Your task to perform on an android device: turn on data saver in the chrome app Image 0: 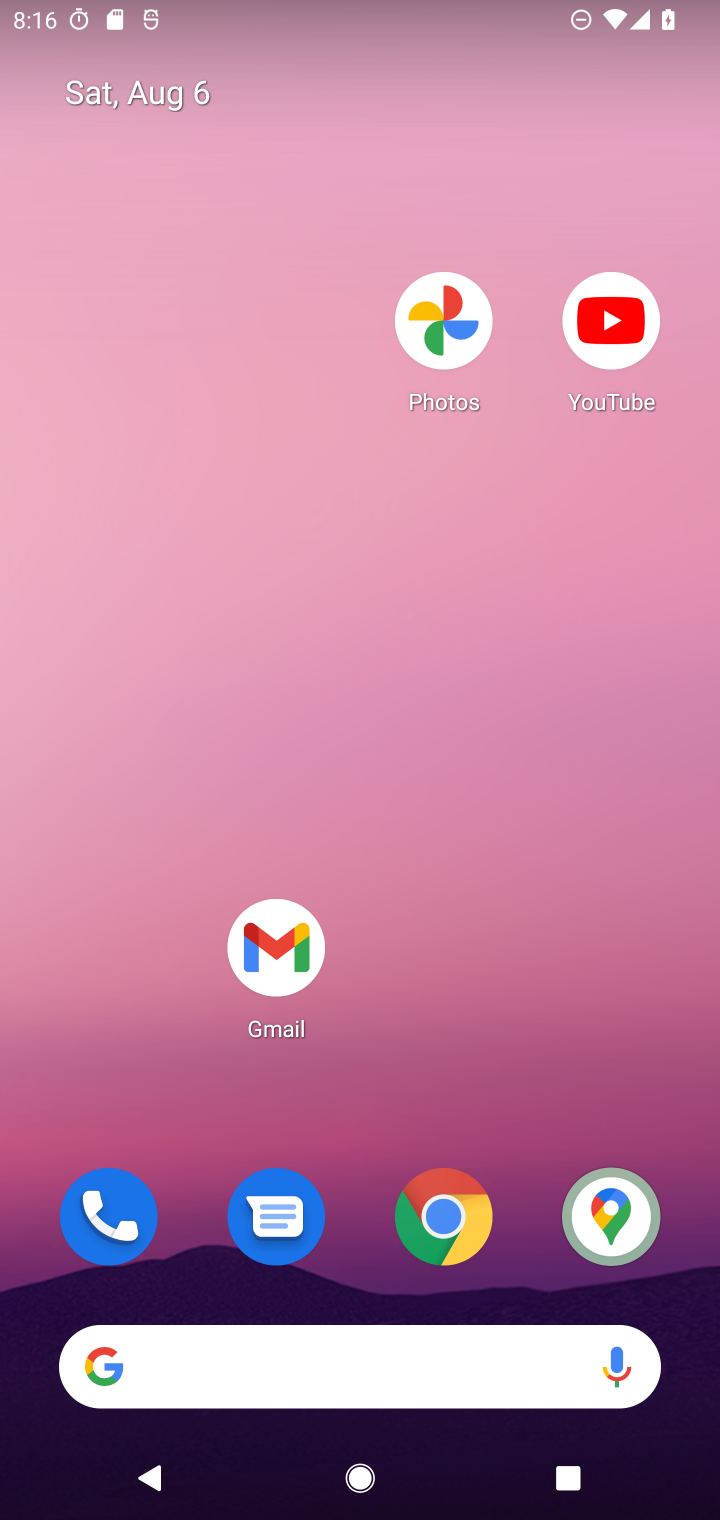
Step 0: drag from (534, 989) to (364, 17)
Your task to perform on an android device: turn on data saver in the chrome app Image 1: 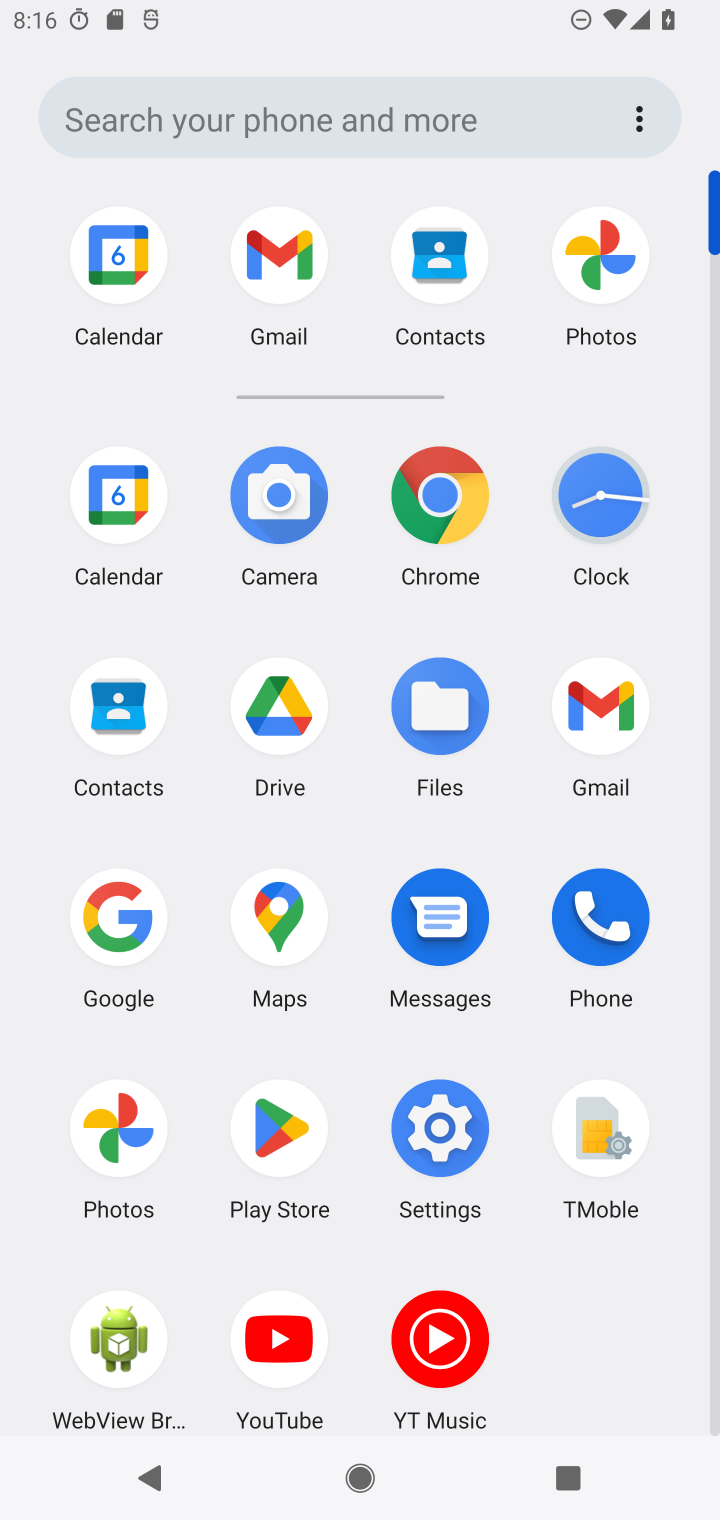
Step 1: click (437, 492)
Your task to perform on an android device: turn on data saver in the chrome app Image 2: 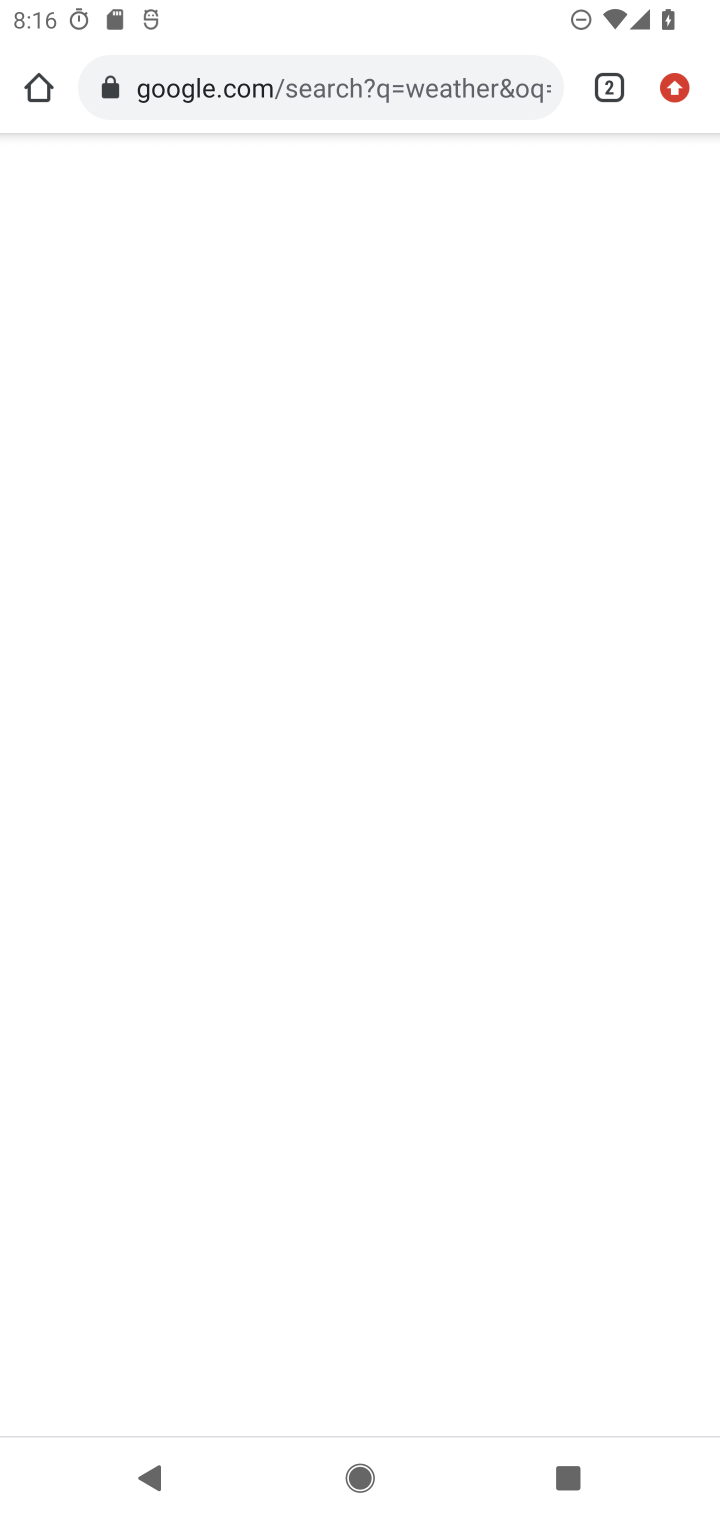
Step 2: drag from (708, 80) to (393, 1182)
Your task to perform on an android device: turn on data saver in the chrome app Image 3: 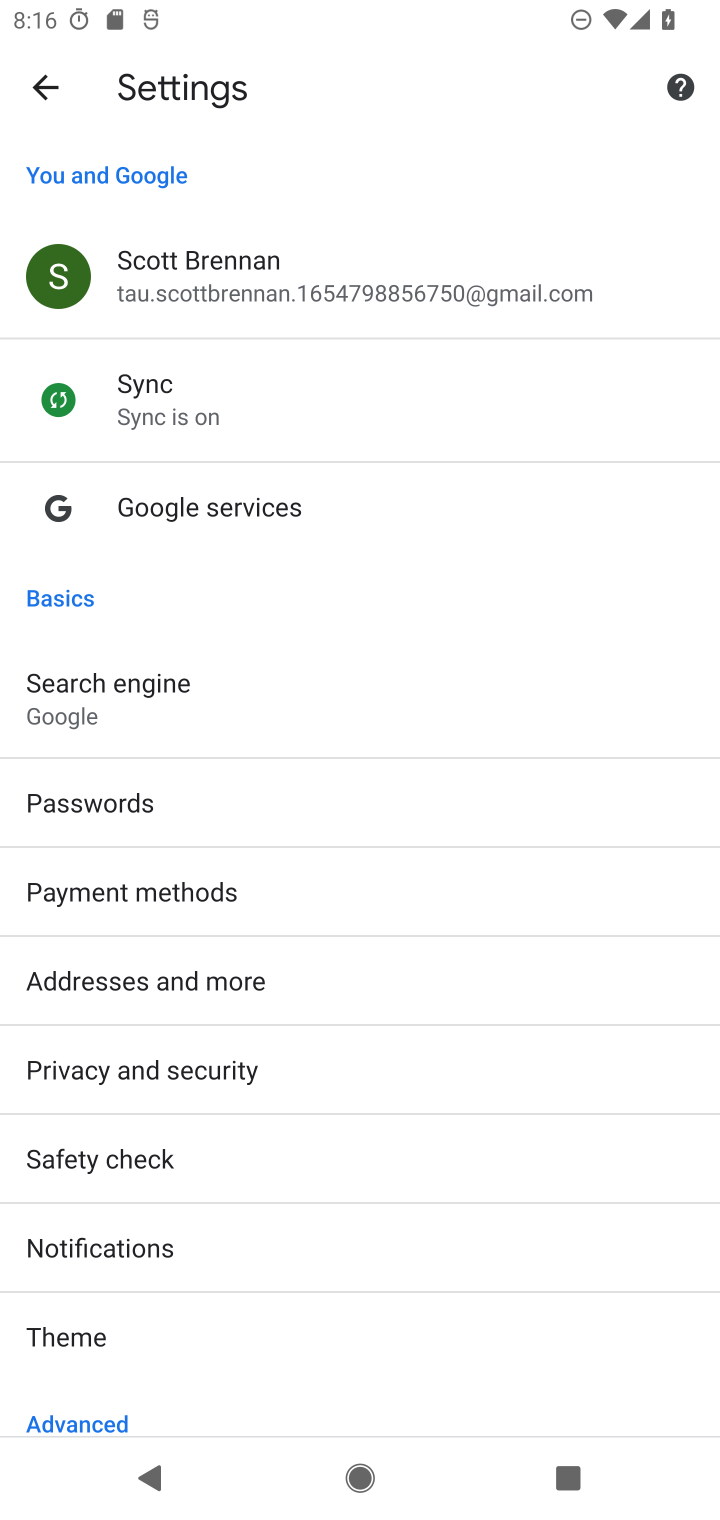
Step 3: drag from (328, 1281) to (496, 318)
Your task to perform on an android device: turn on data saver in the chrome app Image 4: 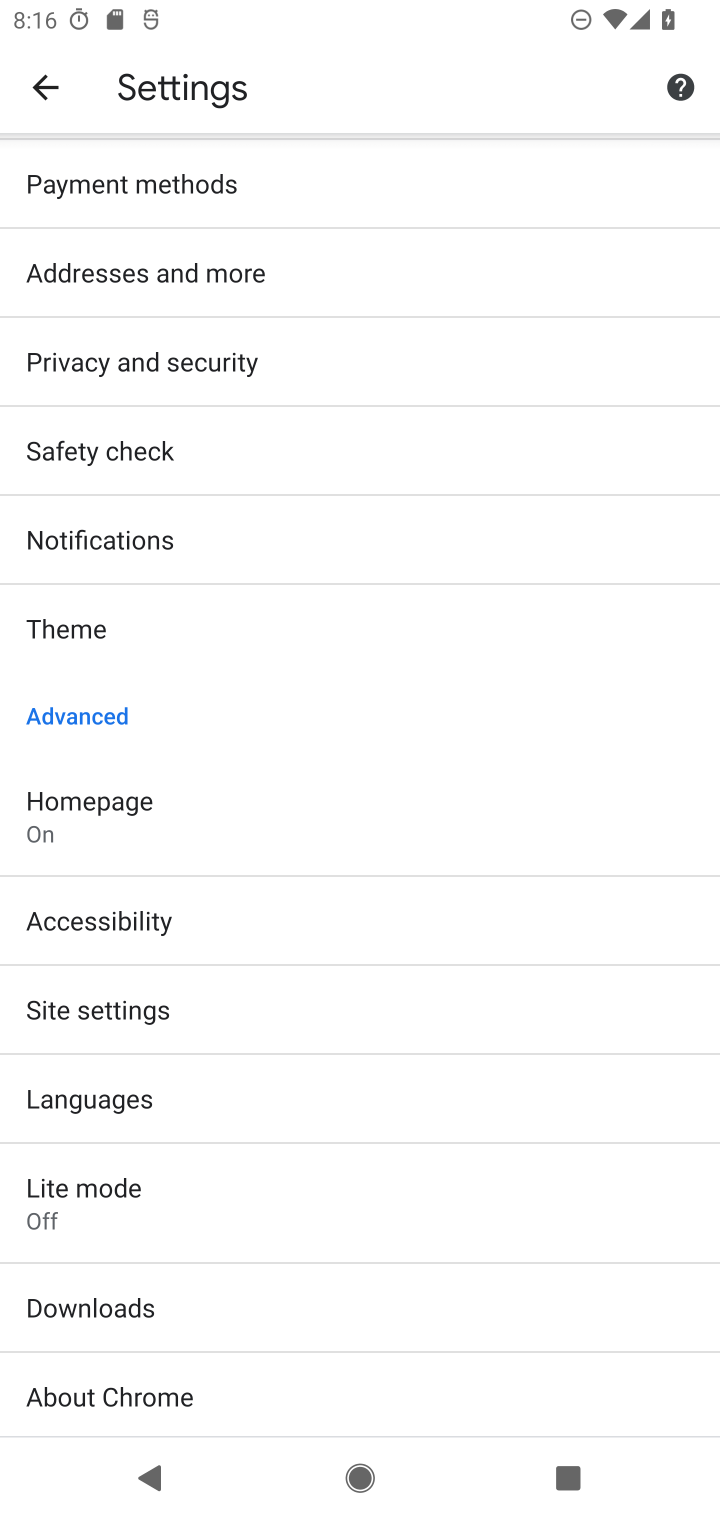
Step 4: click (114, 1213)
Your task to perform on an android device: turn on data saver in the chrome app Image 5: 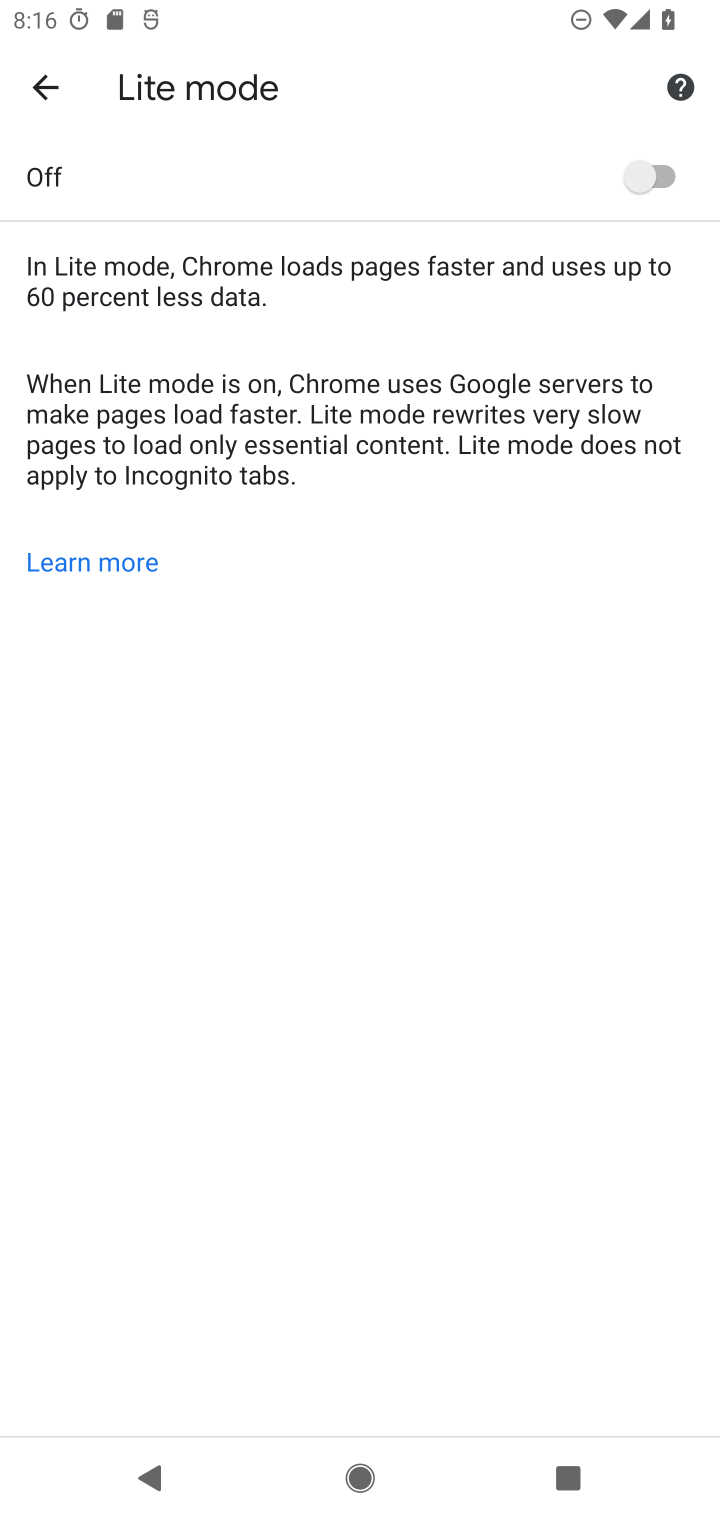
Step 5: click (625, 156)
Your task to perform on an android device: turn on data saver in the chrome app Image 6: 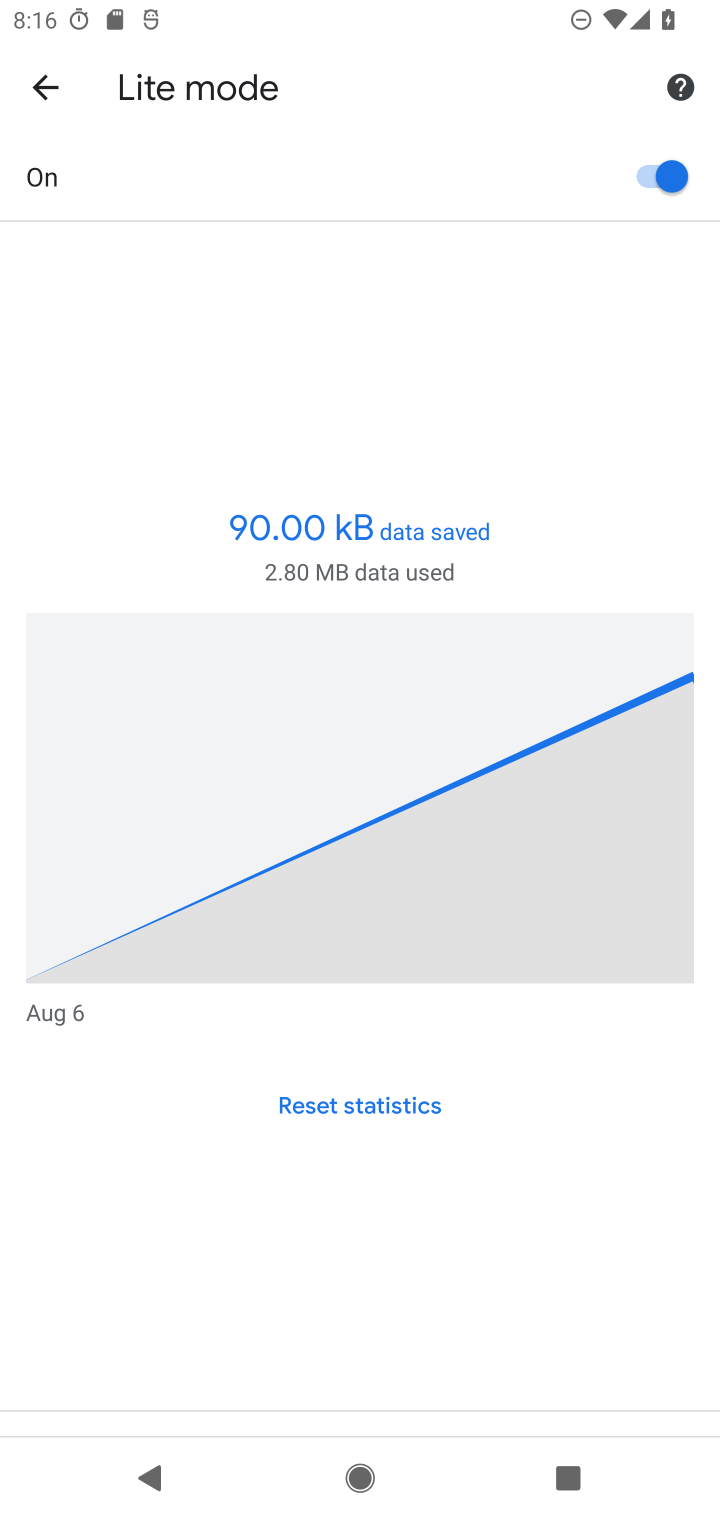
Step 6: task complete